Your task to perform on an android device: show emergency info Image 0: 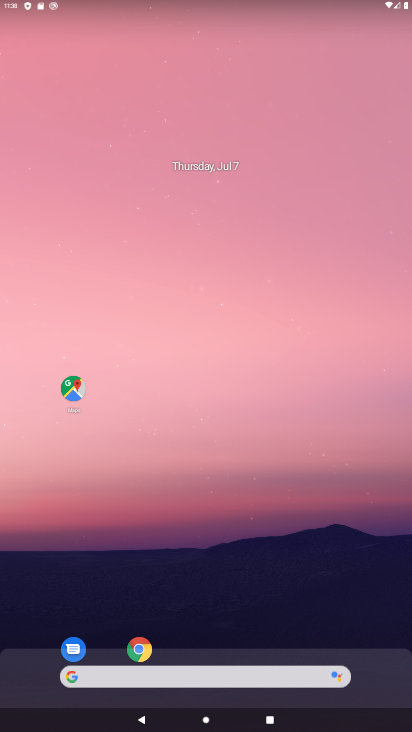
Step 0: drag from (241, 542) to (147, 51)
Your task to perform on an android device: show emergency info Image 1: 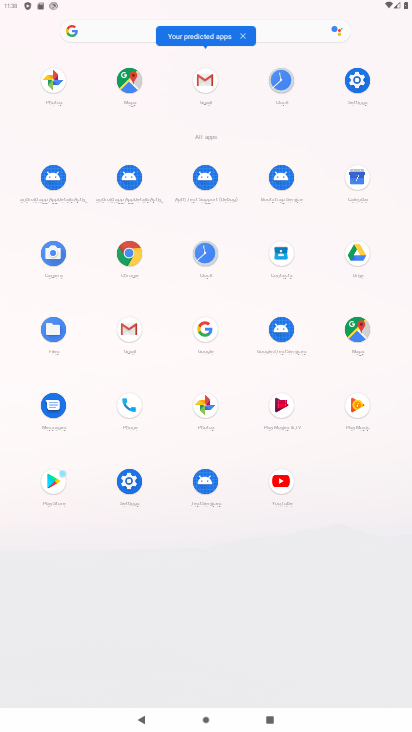
Step 1: click (350, 78)
Your task to perform on an android device: show emergency info Image 2: 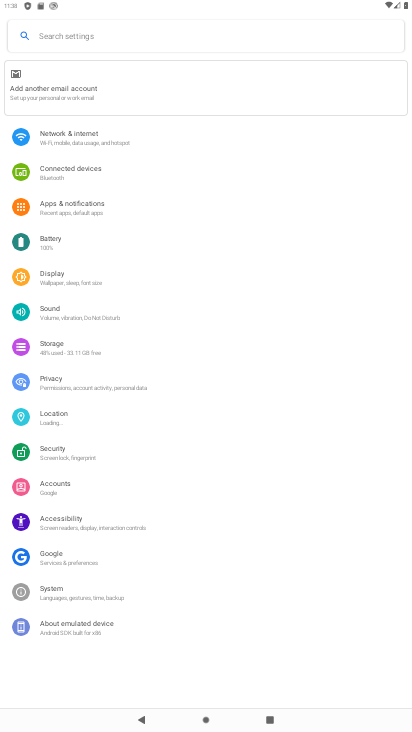
Step 2: click (75, 623)
Your task to perform on an android device: show emergency info Image 3: 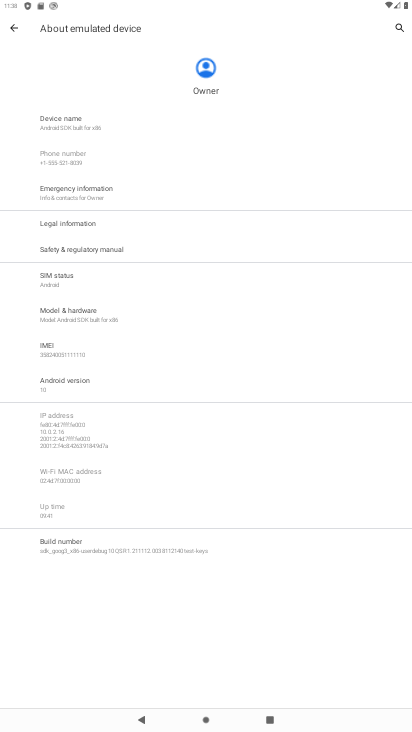
Step 3: click (75, 623)
Your task to perform on an android device: show emergency info Image 4: 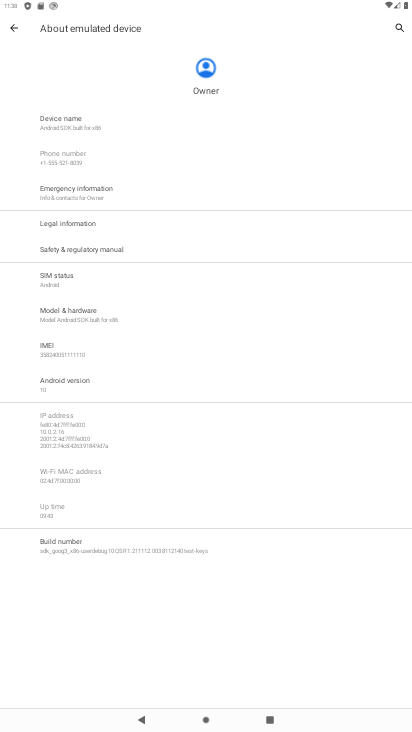
Step 4: click (70, 186)
Your task to perform on an android device: show emergency info Image 5: 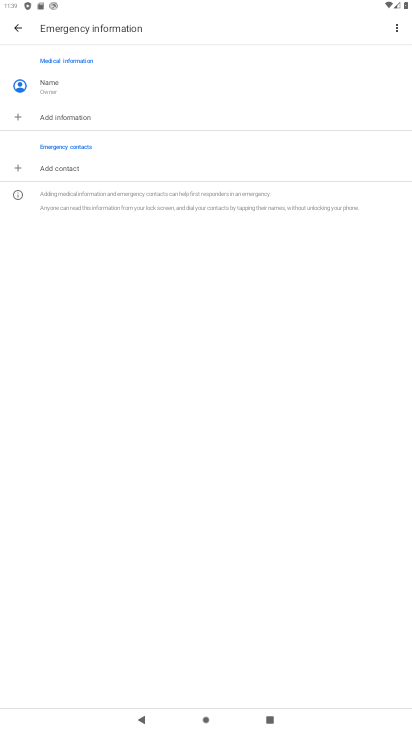
Step 5: task complete